Your task to perform on an android device: Go to calendar. Show me events next week Image 0: 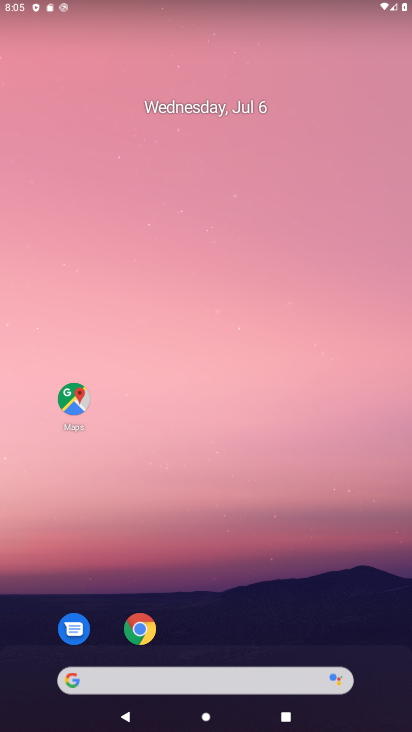
Step 0: drag from (255, 710) to (150, 282)
Your task to perform on an android device: Go to calendar. Show me events next week Image 1: 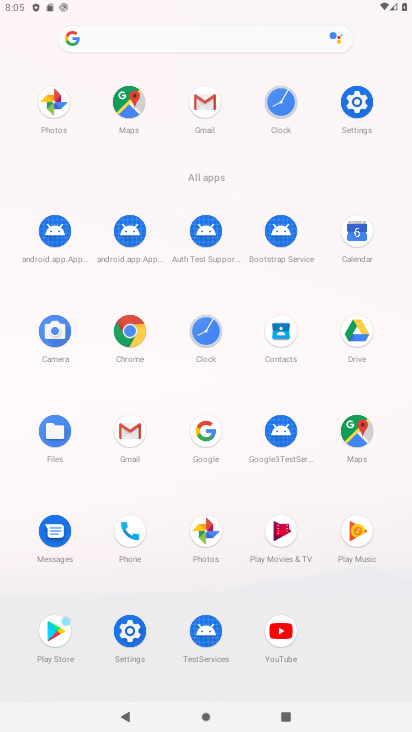
Step 1: click (281, 333)
Your task to perform on an android device: Go to calendar. Show me events next week Image 2: 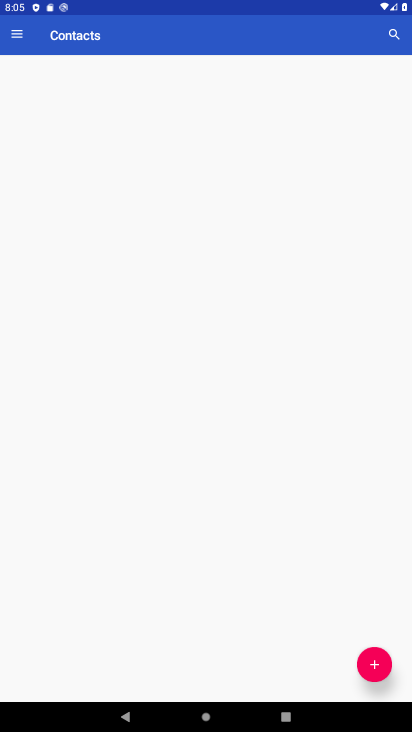
Step 2: press back button
Your task to perform on an android device: Go to calendar. Show me events next week Image 3: 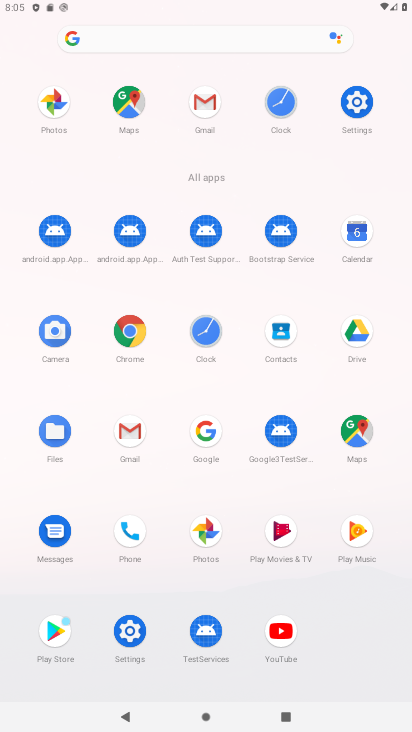
Step 3: click (354, 230)
Your task to perform on an android device: Go to calendar. Show me events next week Image 4: 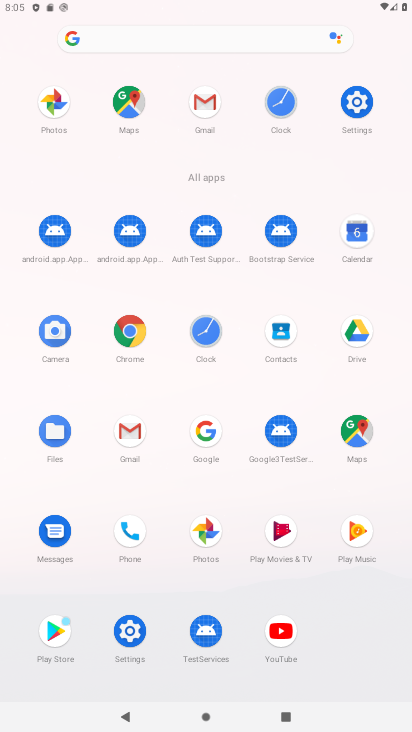
Step 4: click (356, 231)
Your task to perform on an android device: Go to calendar. Show me events next week Image 5: 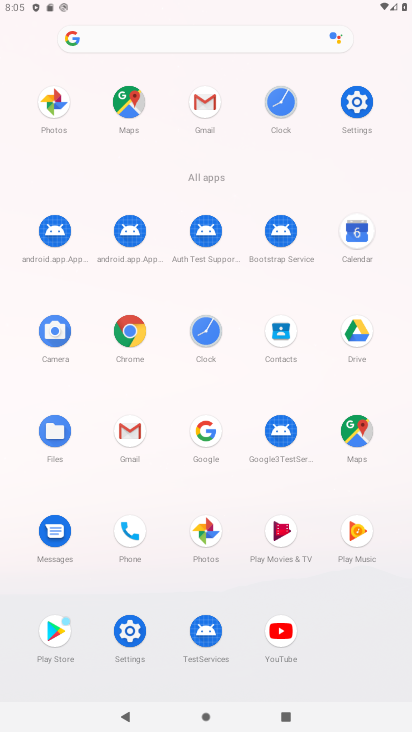
Step 5: click (357, 232)
Your task to perform on an android device: Go to calendar. Show me events next week Image 6: 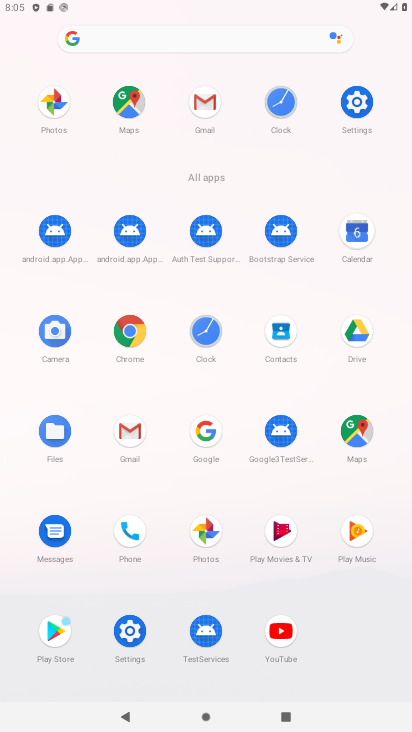
Step 6: click (358, 231)
Your task to perform on an android device: Go to calendar. Show me events next week Image 7: 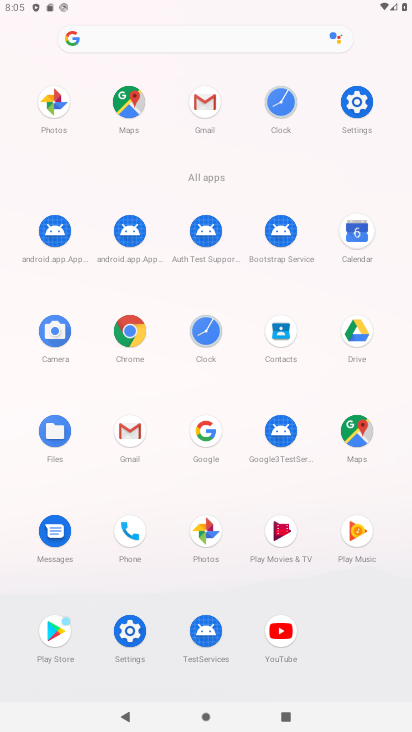
Step 7: click (358, 230)
Your task to perform on an android device: Go to calendar. Show me events next week Image 8: 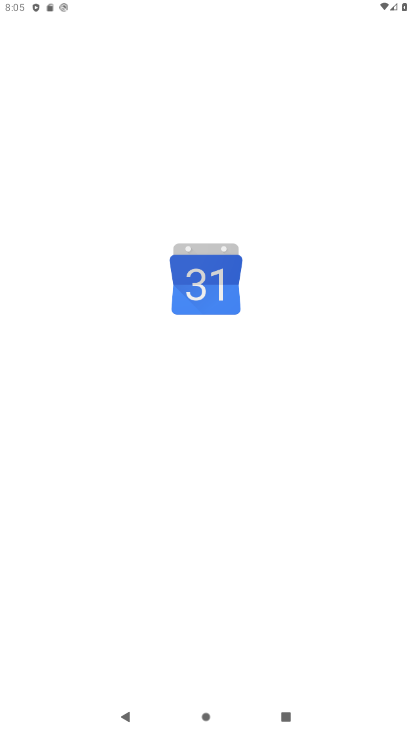
Step 8: click (365, 233)
Your task to perform on an android device: Go to calendar. Show me events next week Image 9: 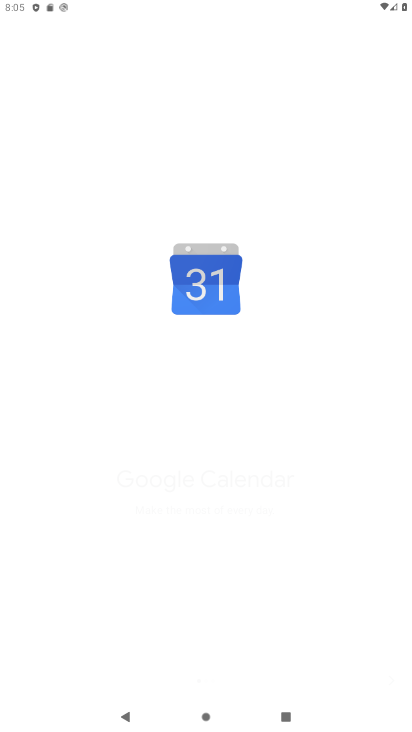
Step 9: click (365, 233)
Your task to perform on an android device: Go to calendar. Show me events next week Image 10: 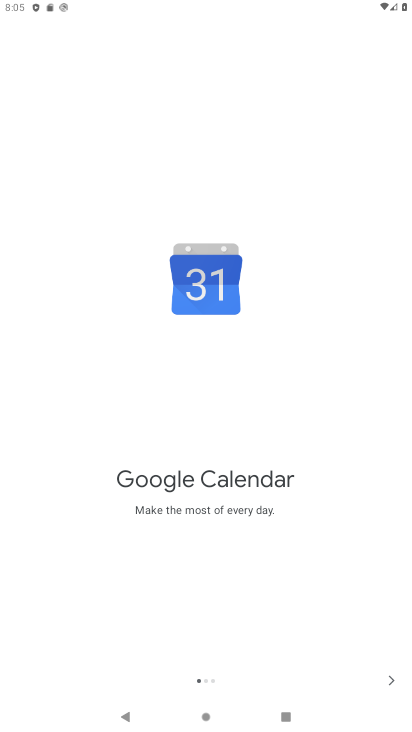
Step 10: click (387, 680)
Your task to perform on an android device: Go to calendar. Show me events next week Image 11: 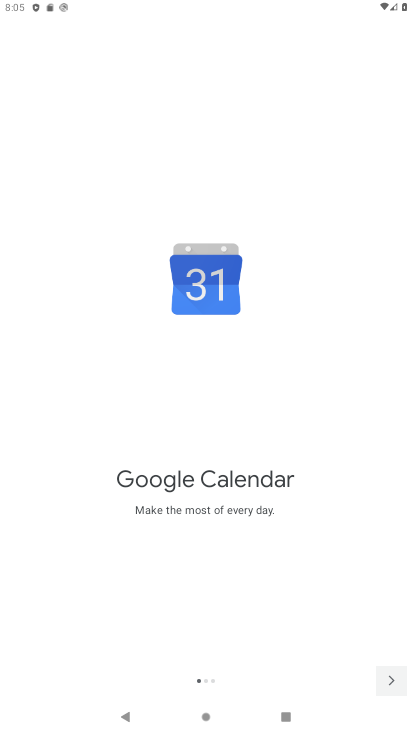
Step 11: click (387, 680)
Your task to perform on an android device: Go to calendar. Show me events next week Image 12: 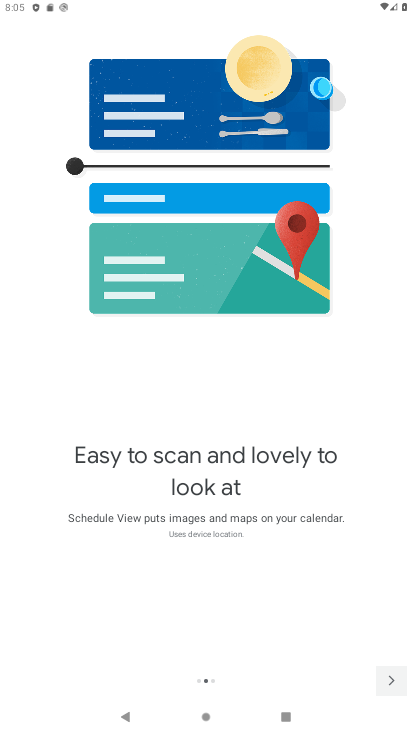
Step 12: click (387, 680)
Your task to perform on an android device: Go to calendar. Show me events next week Image 13: 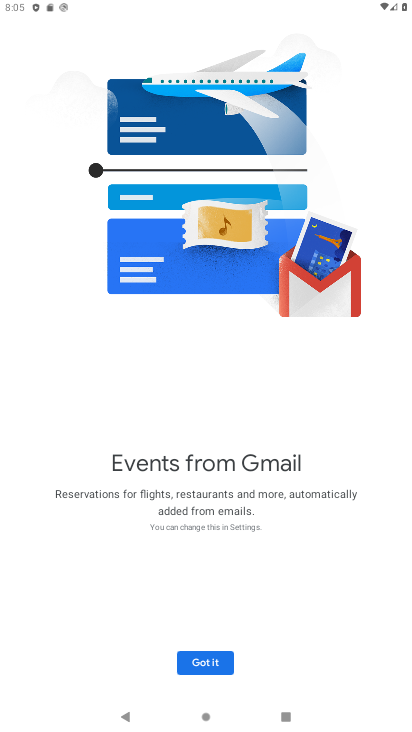
Step 13: click (387, 680)
Your task to perform on an android device: Go to calendar. Show me events next week Image 14: 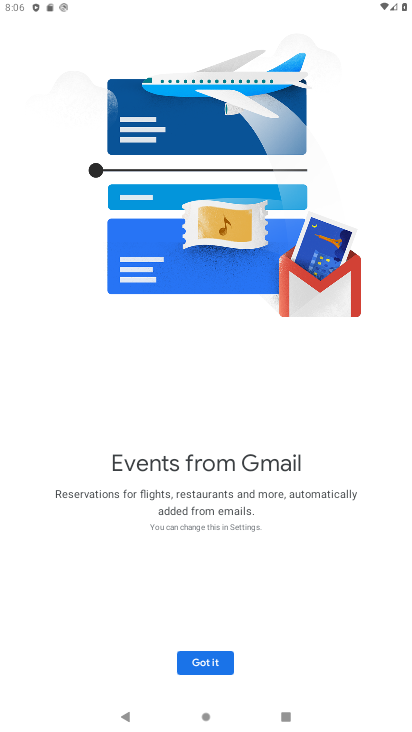
Step 14: click (212, 649)
Your task to perform on an android device: Go to calendar. Show me events next week Image 15: 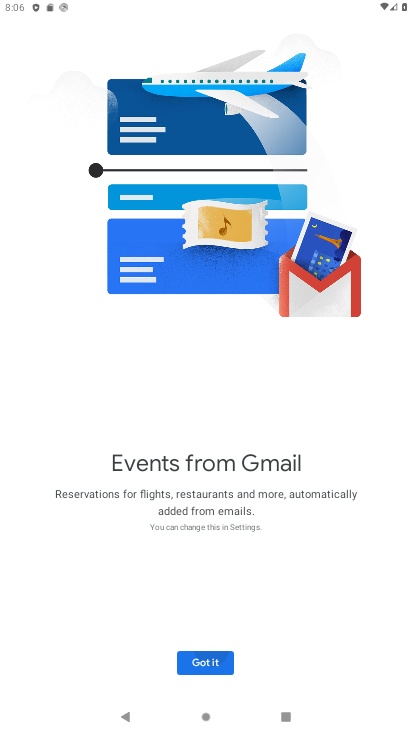
Step 15: click (212, 649)
Your task to perform on an android device: Go to calendar. Show me events next week Image 16: 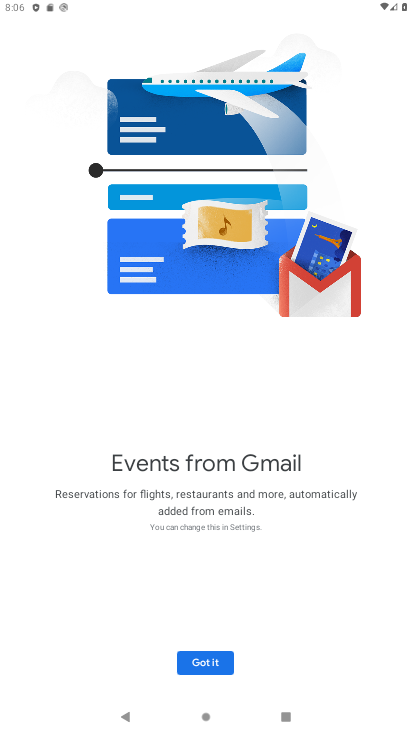
Step 16: click (212, 649)
Your task to perform on an android device: Go to calendar. Show me events next week Image 17: 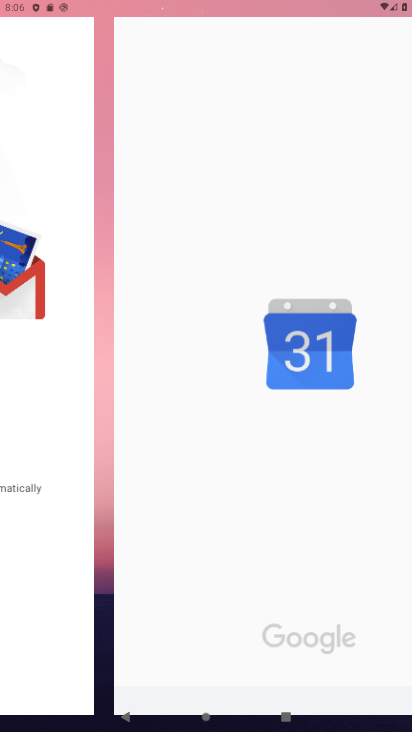
Step 17: click (212, 649)
Your task to perform on an android device: Go to calendar. Show me events next week Image 18: 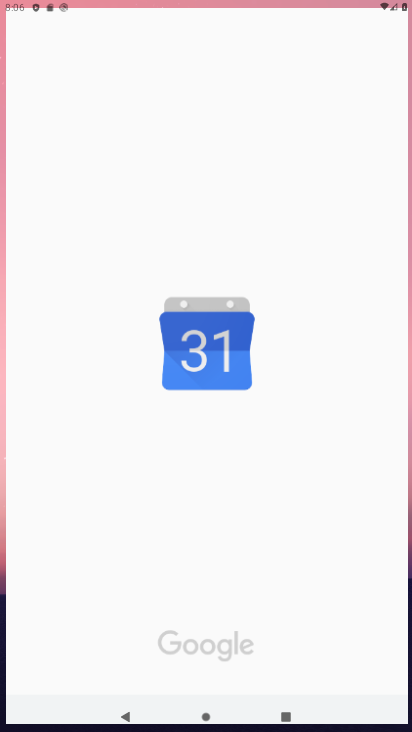
Step 18: click (214, 651)
Your task to perform on an android device: Go to calendar. Show me events next week Image 19: 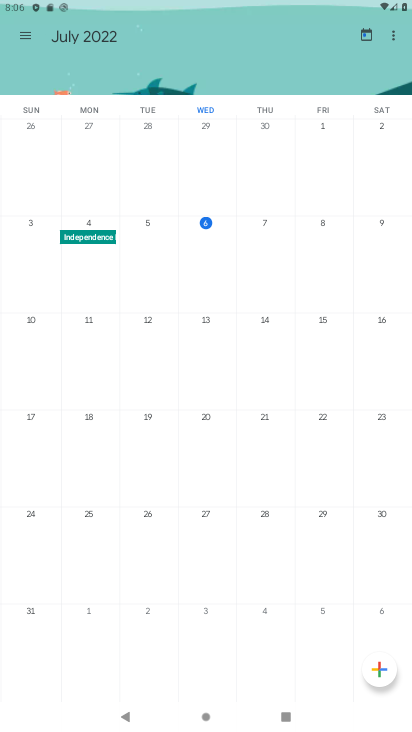
Step 19: click (27, 34)
Your task to perform on an android device: Go to calendar. Show me events next week Image 20: 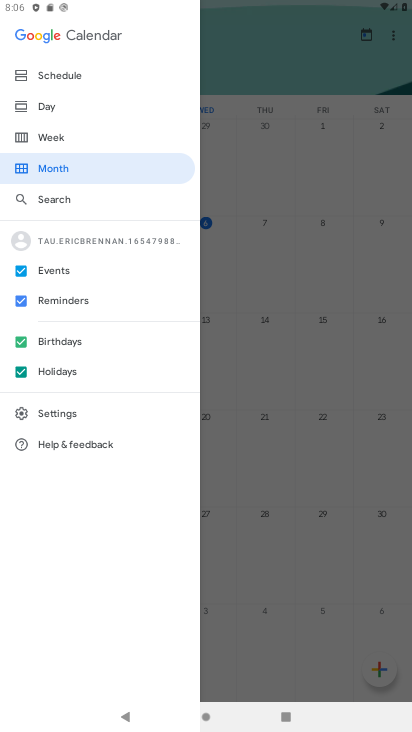
Step 20: click (52, 66)
Your task to perform on an android device: Go to calendar. Show me events next week Image 21: 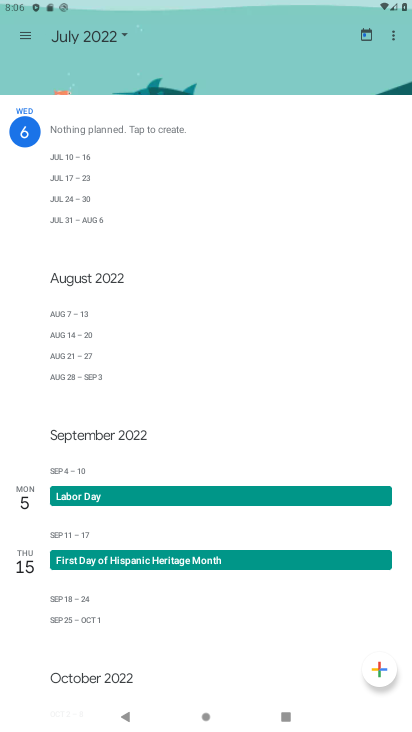
Step 21: click (82, 179)
Your task to perform on an android device: Go to calendar. Show me events next week Image 22: 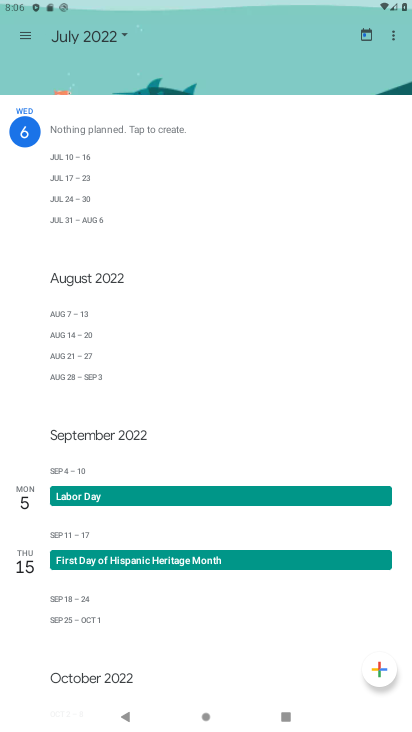
Step 22: click (82, 179)
Your task to perform on an android device: Go to calendar. Show me events next week Image 23: 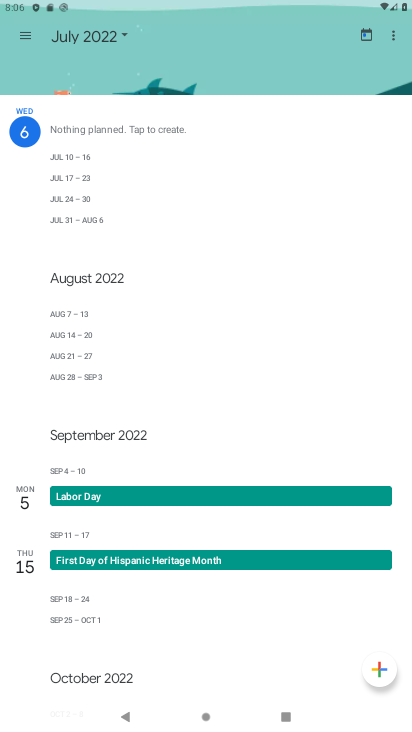
Step 23: click (82, 179)
Your task to perform on an android device: Go to calendar. Show me events next week Image 24: 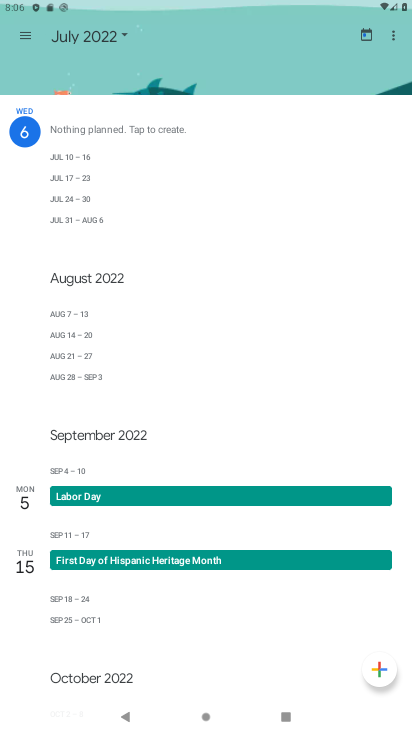
Step 24: click (82, 179)
Your task to perform on an android device: Go to calendar. Show me events next week Image 25: 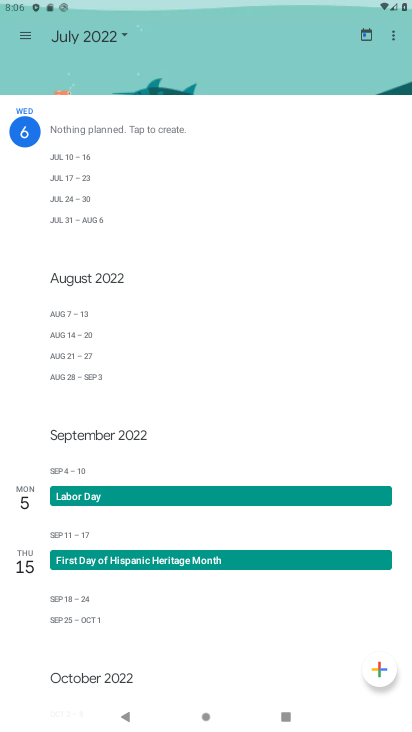
Step 25: click (83, 179)
Your task to perform on an android device: Go to calendar. Show me events next week Image 26: 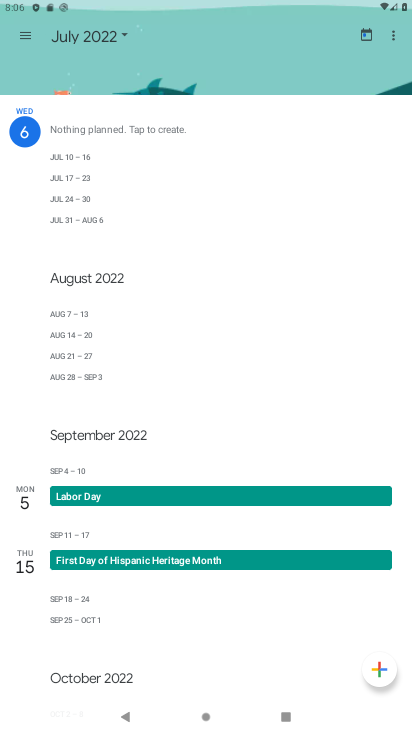
Step 26: click (83, 179)
Your task to perform on an android device: Go to calendar. Show me events next week Image 27: 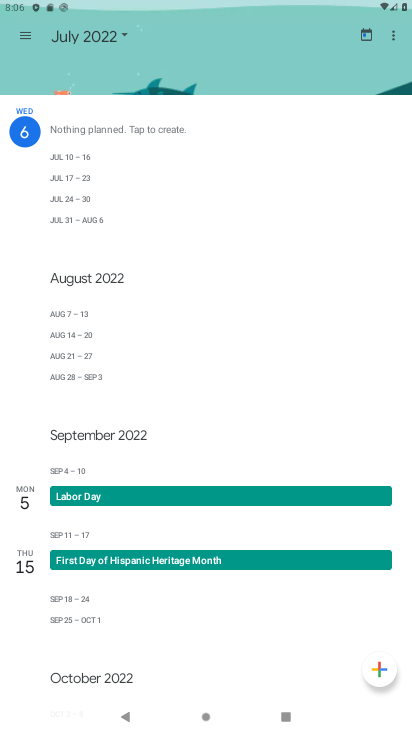
Step 27: click (84, 179)
Your task to perform on an android device: Go to calendar. Show me events next week Image 28: 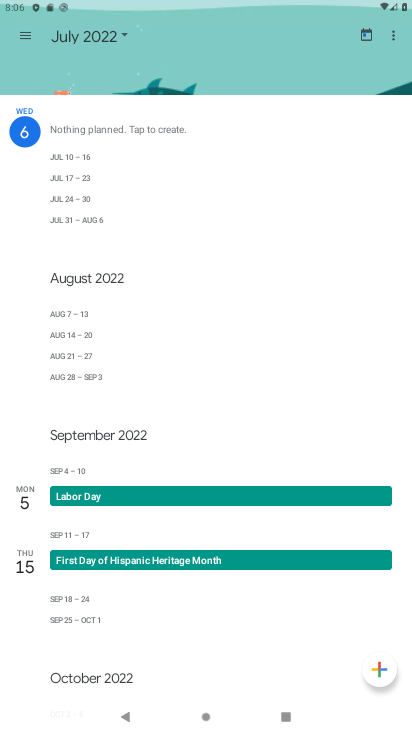
Step 28: click (65, 172)
Your task to perform on an android device: Go to calendar. Show me events next week Image 29: 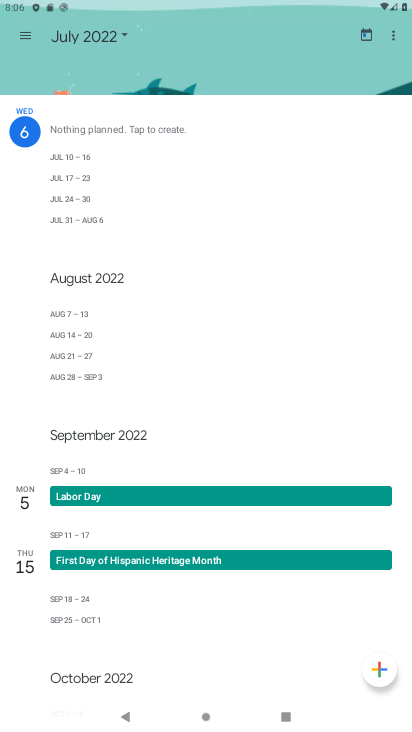
Step 29: click (65, 173)
Your task to perform on an android device: Go to calendar. Show me events next week Image 30: 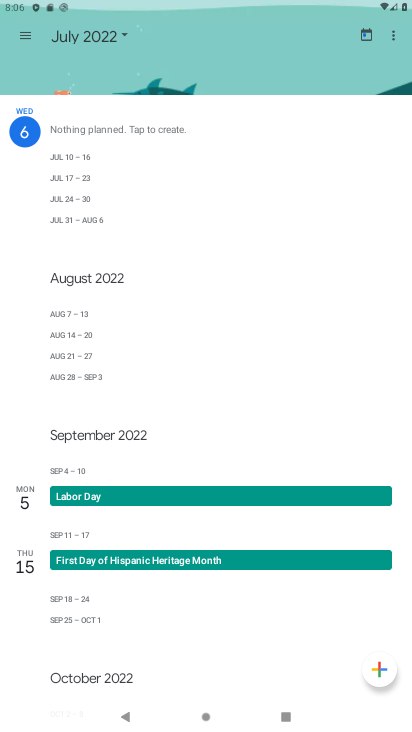
Step 30: click (67, 176)
Your task to perform on an android device: Go to calendar. Show me events next week Image 31: 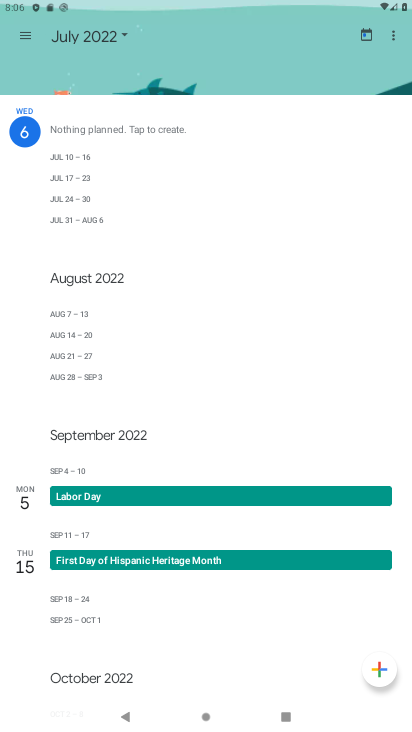
Step 31: click (67, 178)
Your task to perform on an android device: Go to calendar. Show me events next week Image 32: 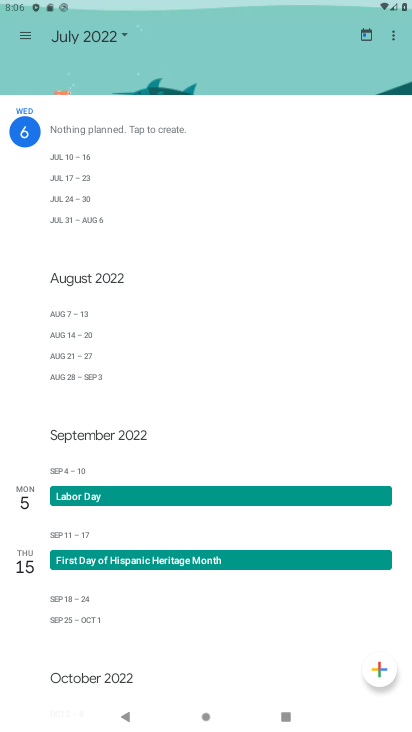
Step 32: task complete